Your task to perform on an android device: open app "Grab" Image 0: 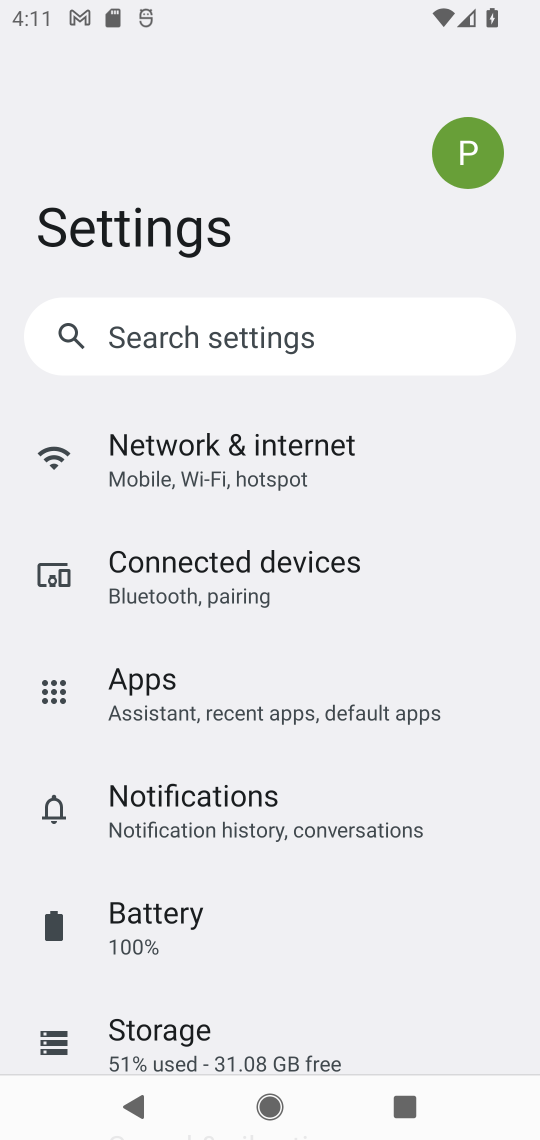
Step 0: press home button
Your task to perform on an android device: open app "Grab" Image 1: 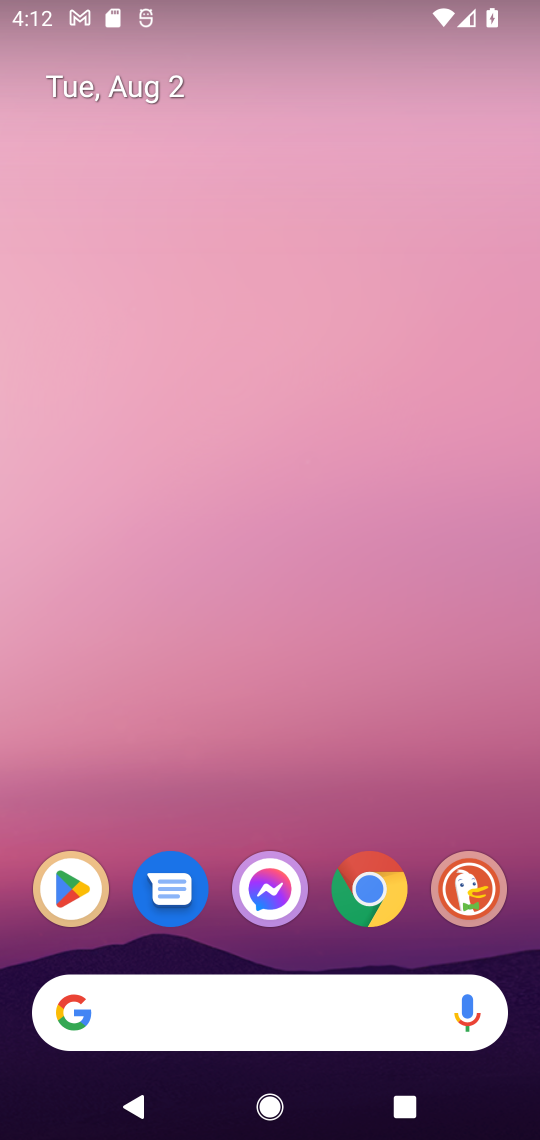
Step 1: drag from (411, 791) to (427, 138)
Your task to perform on an android device: open app "Grab" Image 2: 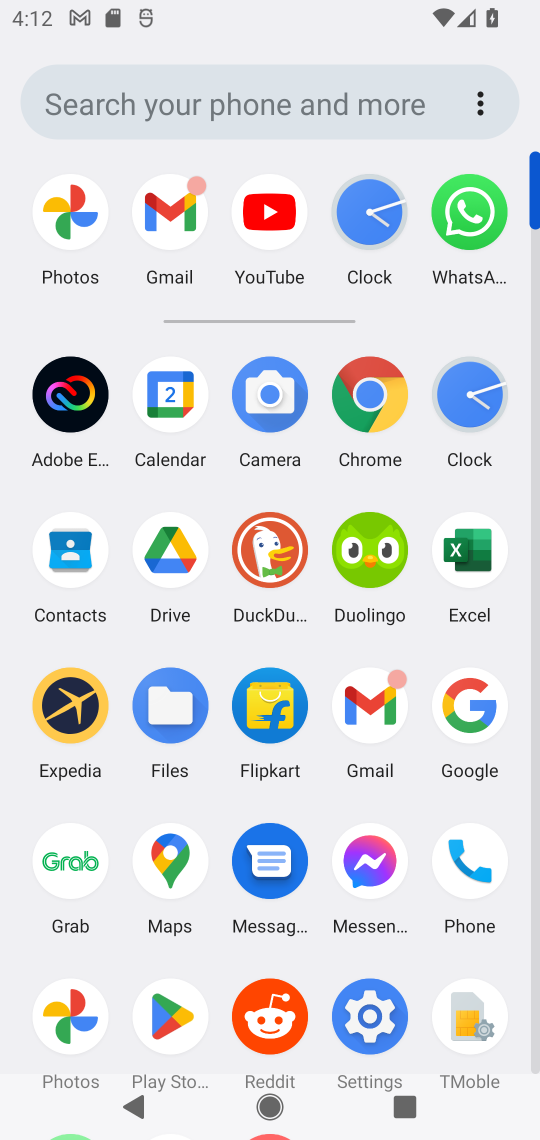
Step 2: click (167, 1021)
Your task to perform on an android device: open app "Grab" Image 3: 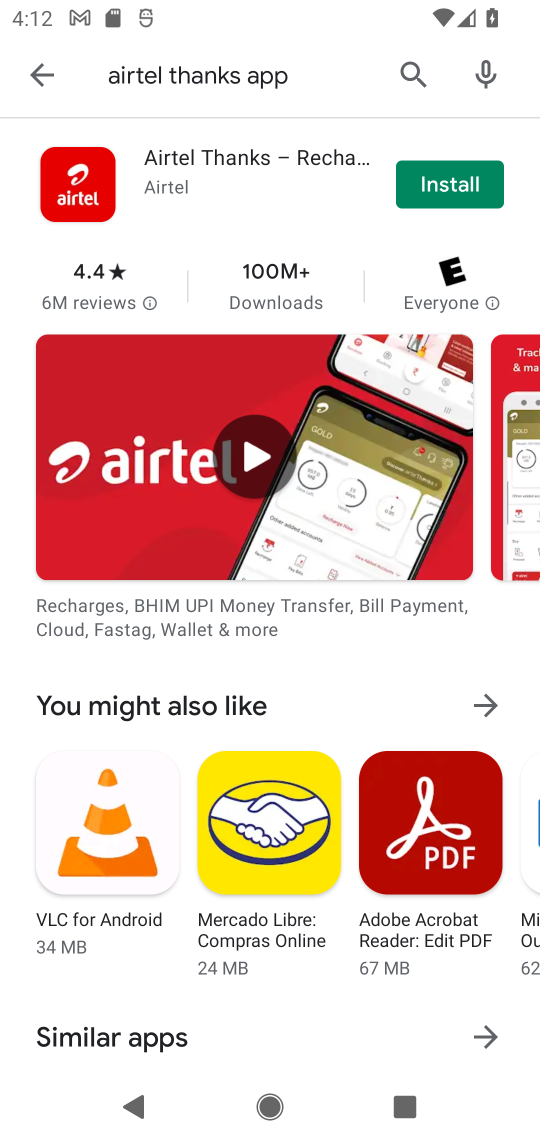
Step 3: click (405, 79)
Your task to perform on an android device: open app "Grab" Image 4: 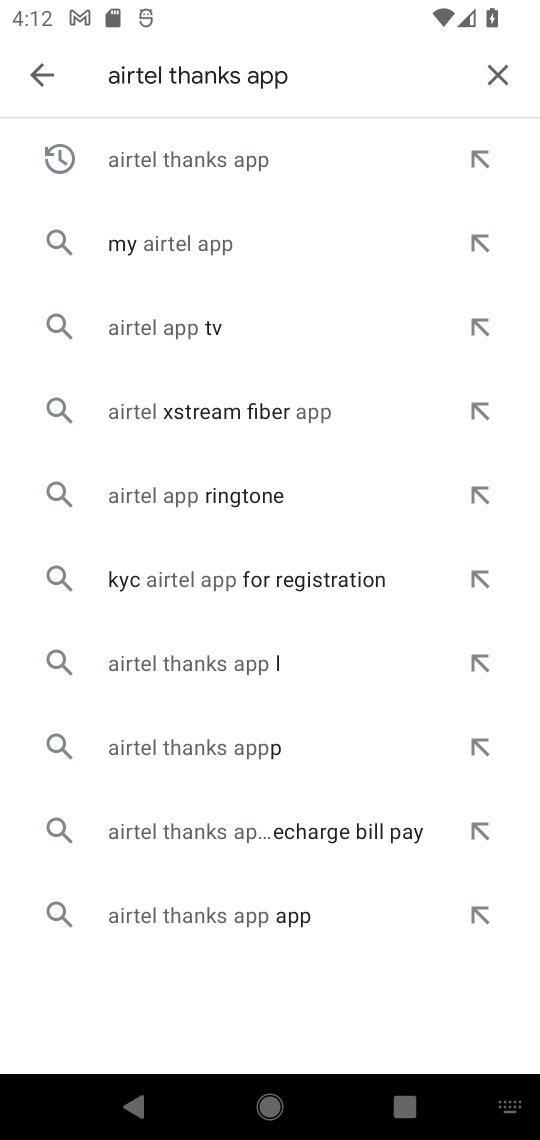
Step 4: click (492, 76)
Your task to perform on an android device: open app "Grab" Image 5: 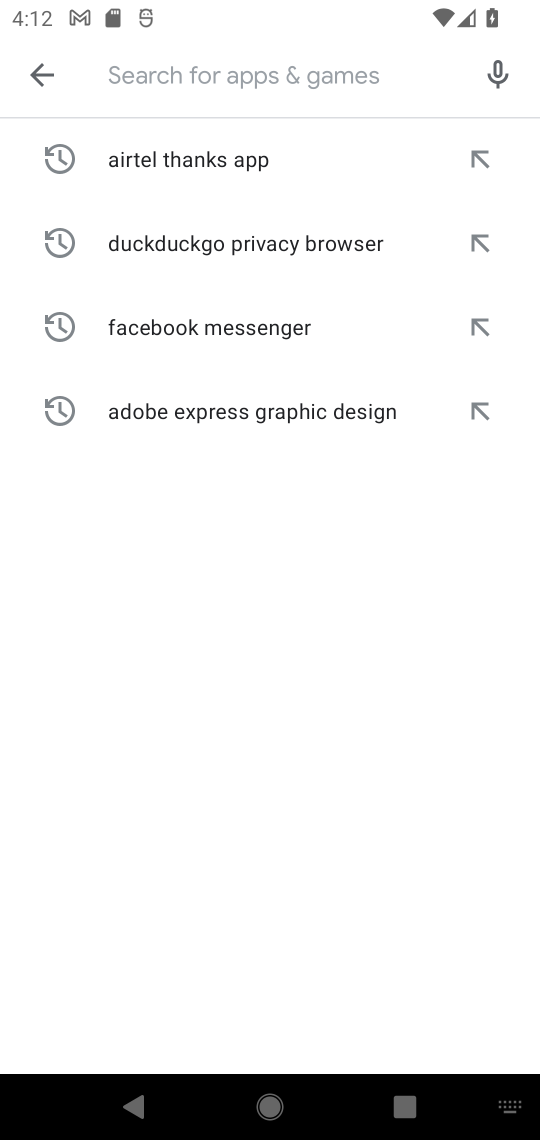
Step 5: type "grab"
Your task to perform on an android device: open app "Grab" Image 6: 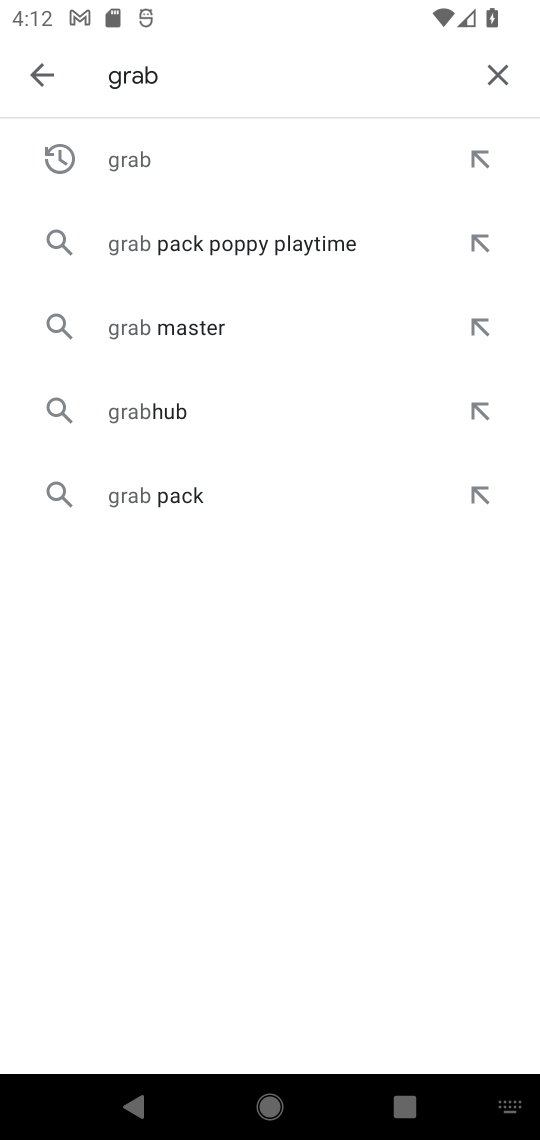
Step 6: click (320, 171)
Your task to perform on an android device: open app "Grab" Image 7: 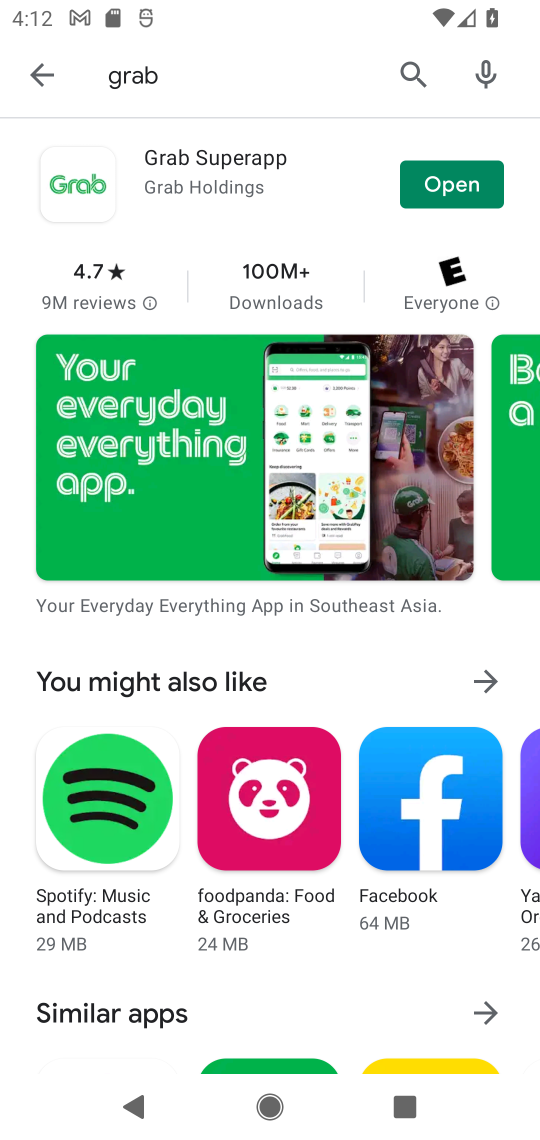
Step 7: click (474, 187)
Your task to perform on an android device: open app "Grab" Image 8: 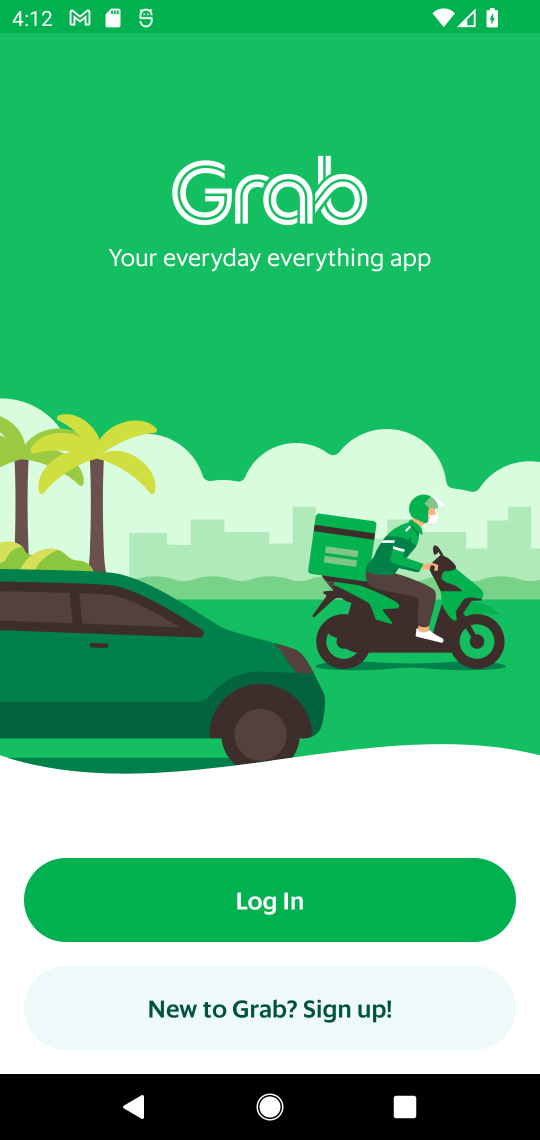
Step 8: task complete